Your task to perform on an android device: open app "Google Play Music" Image 0: 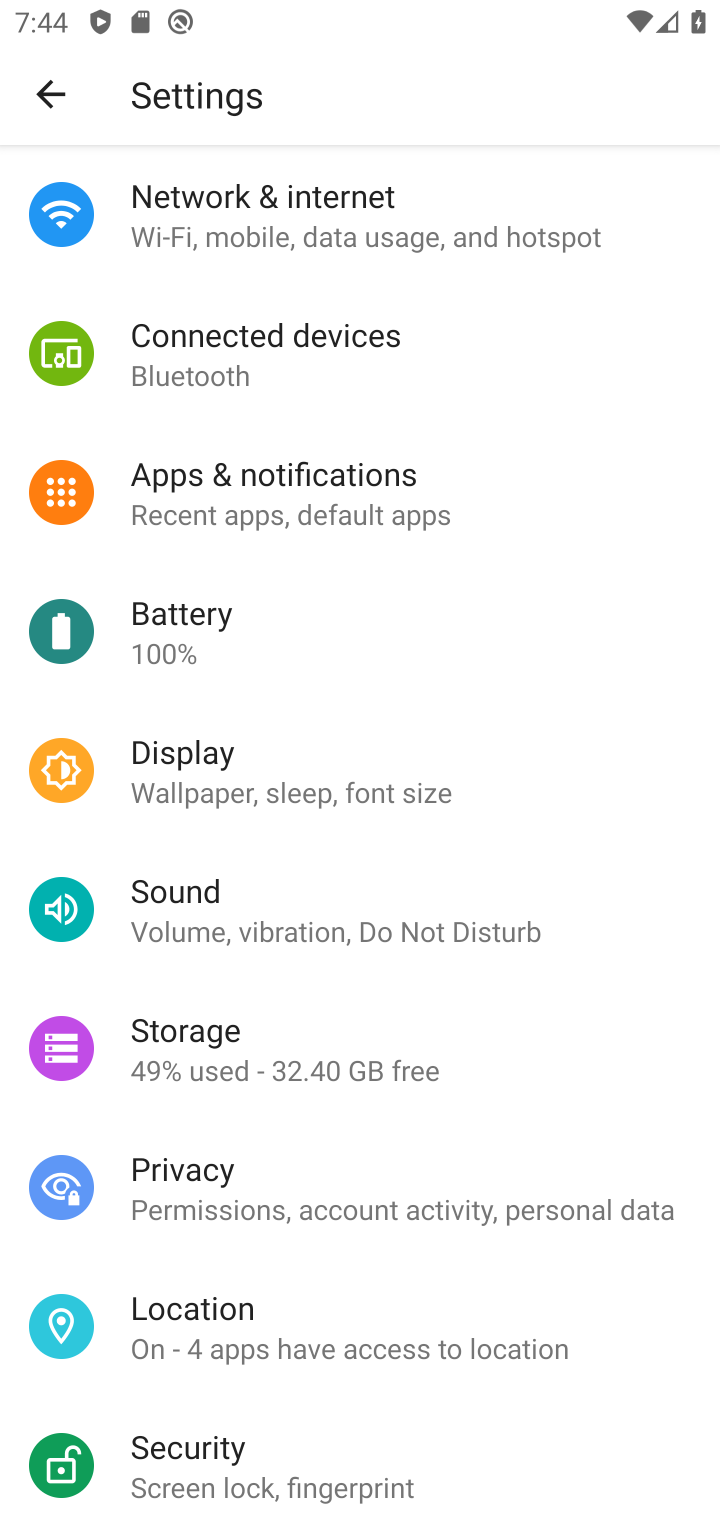
Step 0: press home button
Your task to perform on an android device: open app "Google Play Music" Image 1: 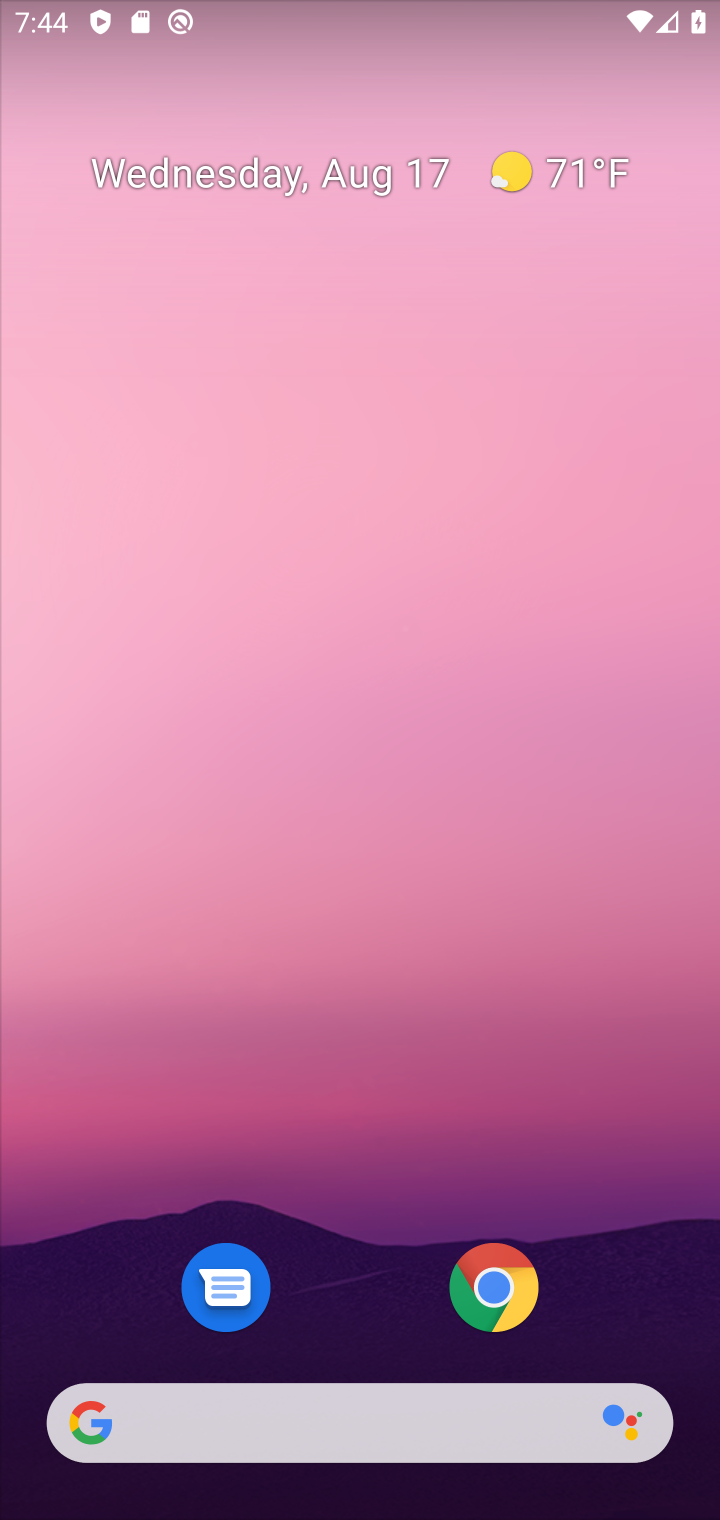
Step 1: drag from (347, 1390) to (373, 236)
Your task to perform on an android device: open app "Google Play Music" Image 2: 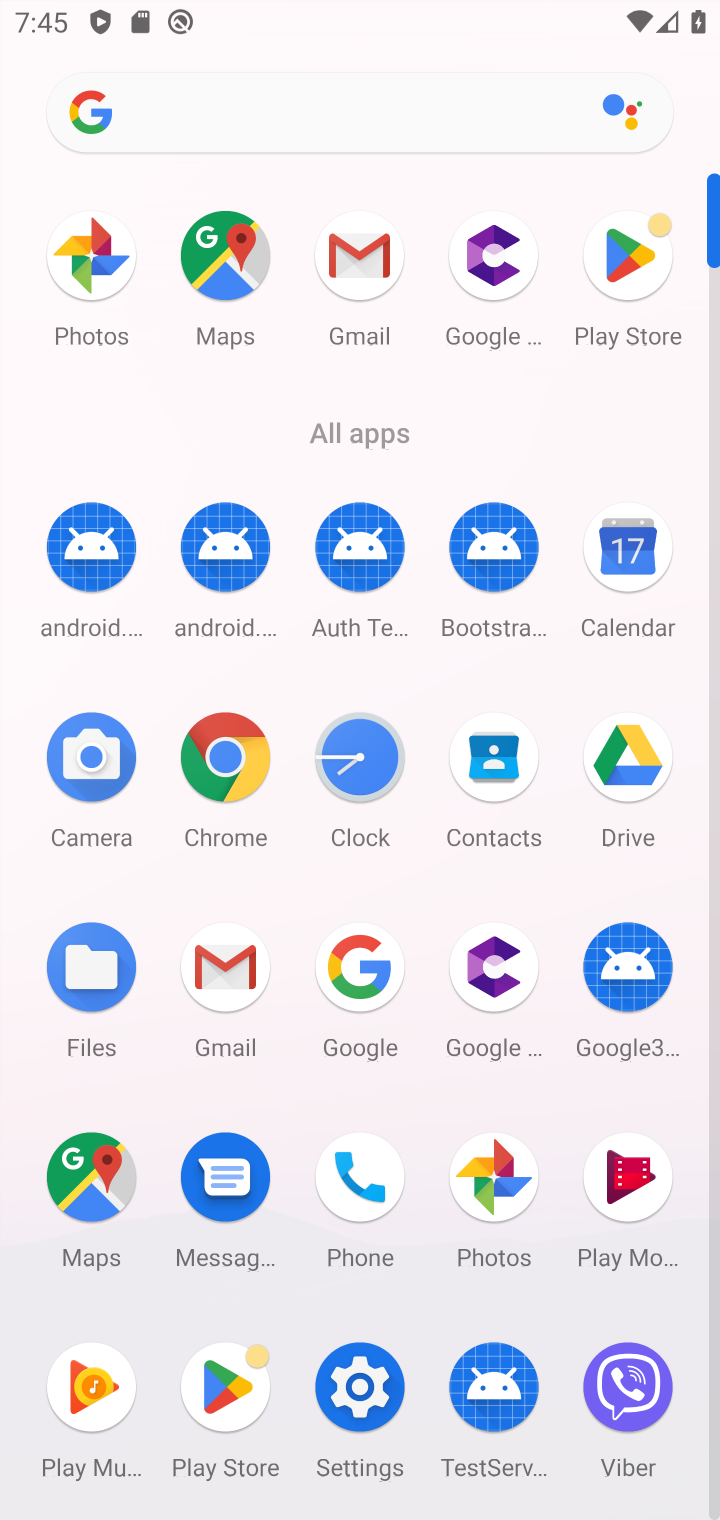
Step 2: click (620, 314)
Your task to perform on an android device: open app "Google Play Music" Image 3: 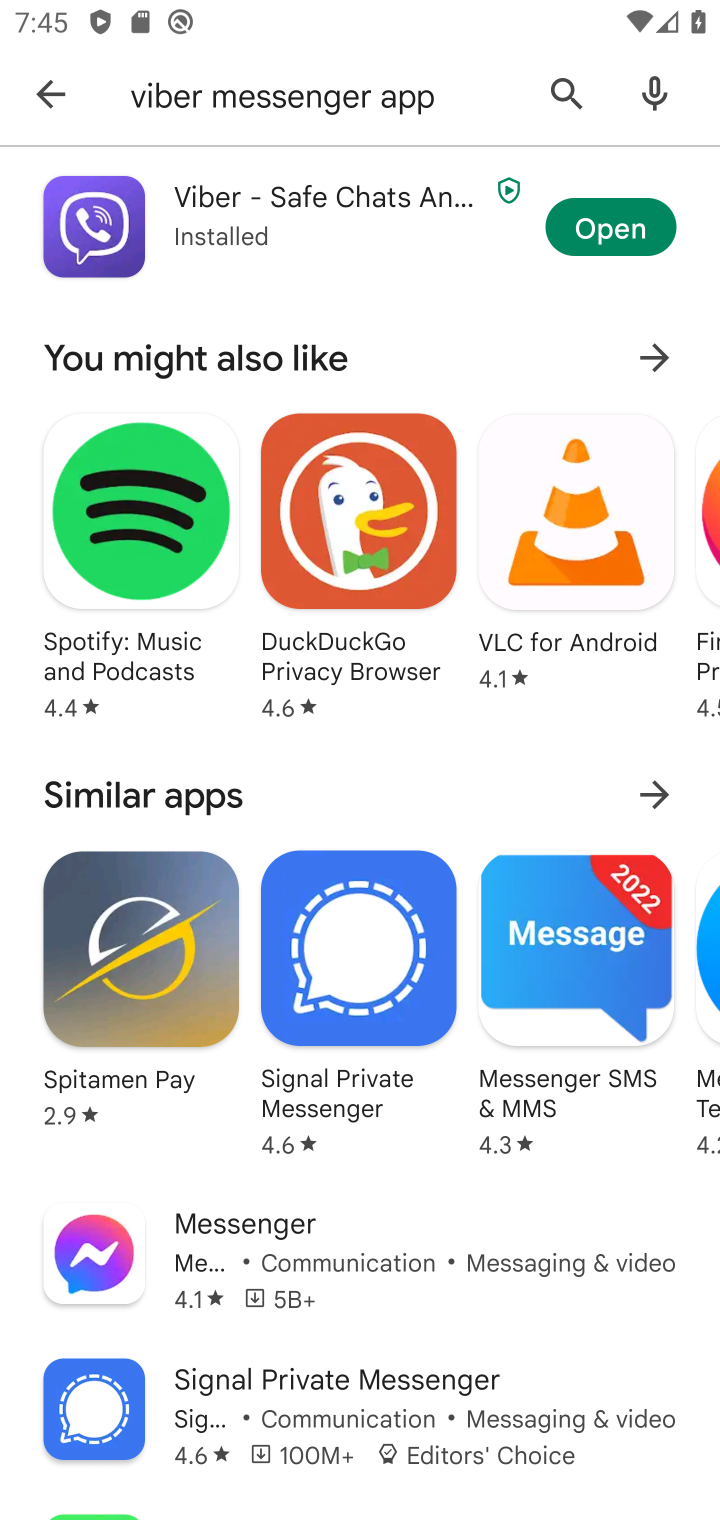
Step 3: click (573, 97)
Your task to perform on an android device: open app "Google Play Music" Image 4: 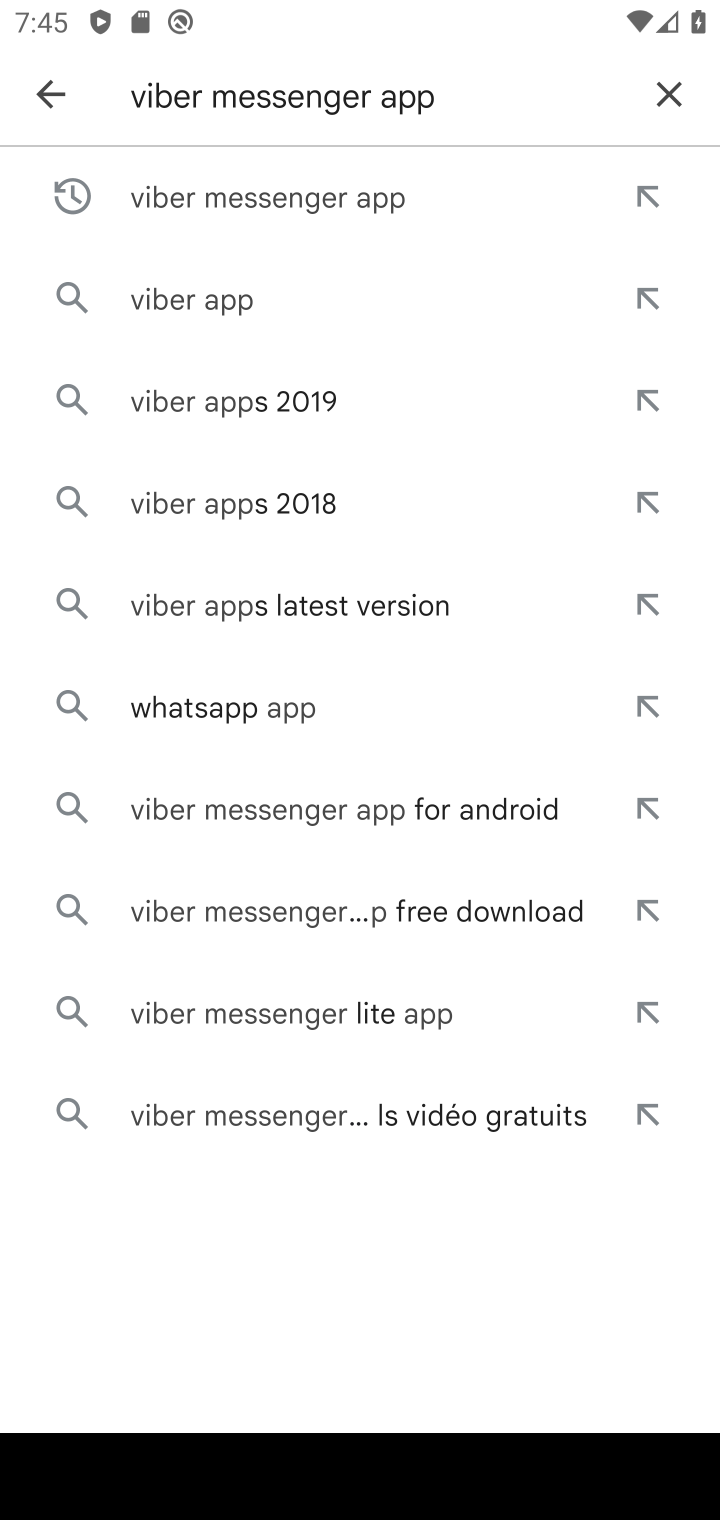
Step 4: click (661, 101)
Your task to perform on an android device: open app "Google Play Music" Image 5: 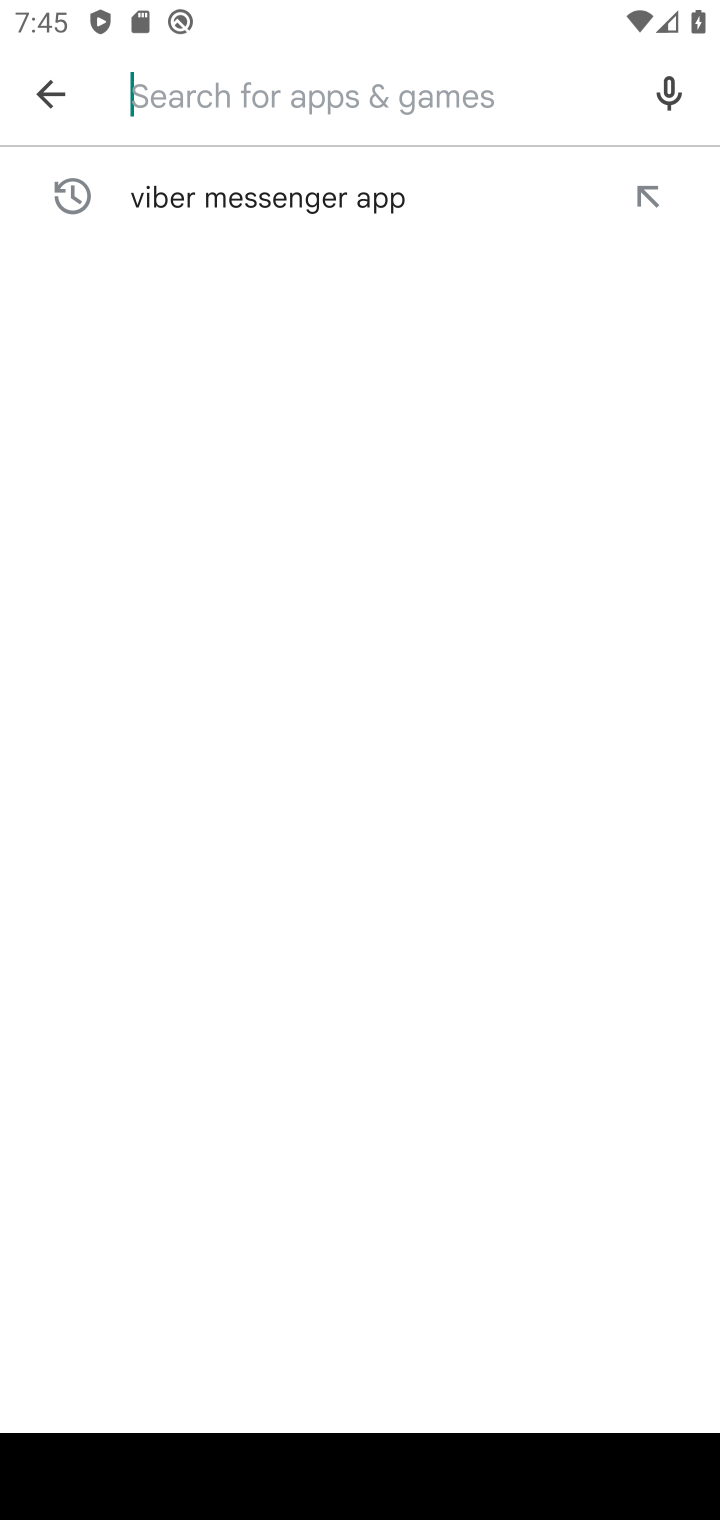
Step 5: type "Google Play Music"
Your task to perform on an android device: open app "Google Play Music" Image 6: 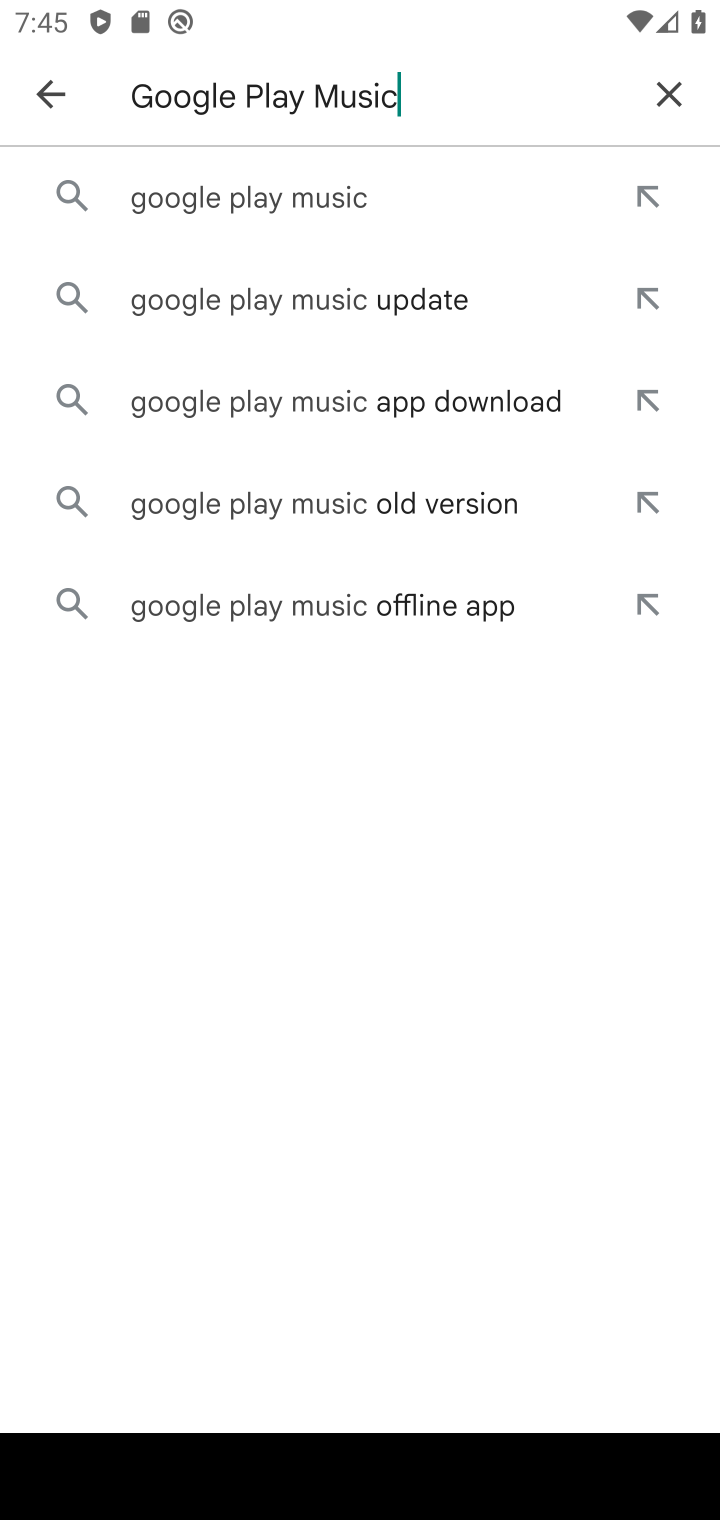
Step 6: click (326, 197)
Your task to perform on an android device: open app "Google Play Music" Image 7: 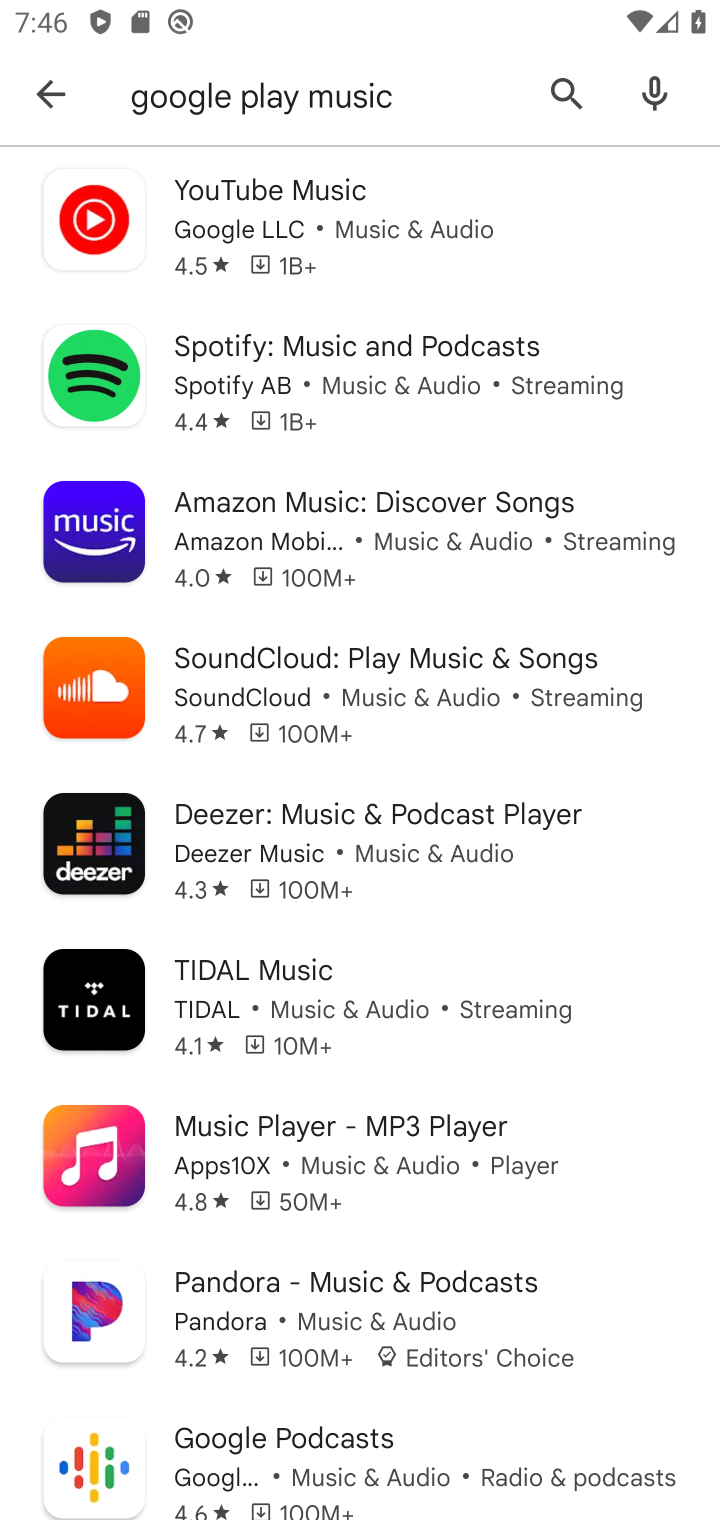
Step 7: click (326, 197)
Your task to perform on an android device: open app "Google Play Music" Image 8: 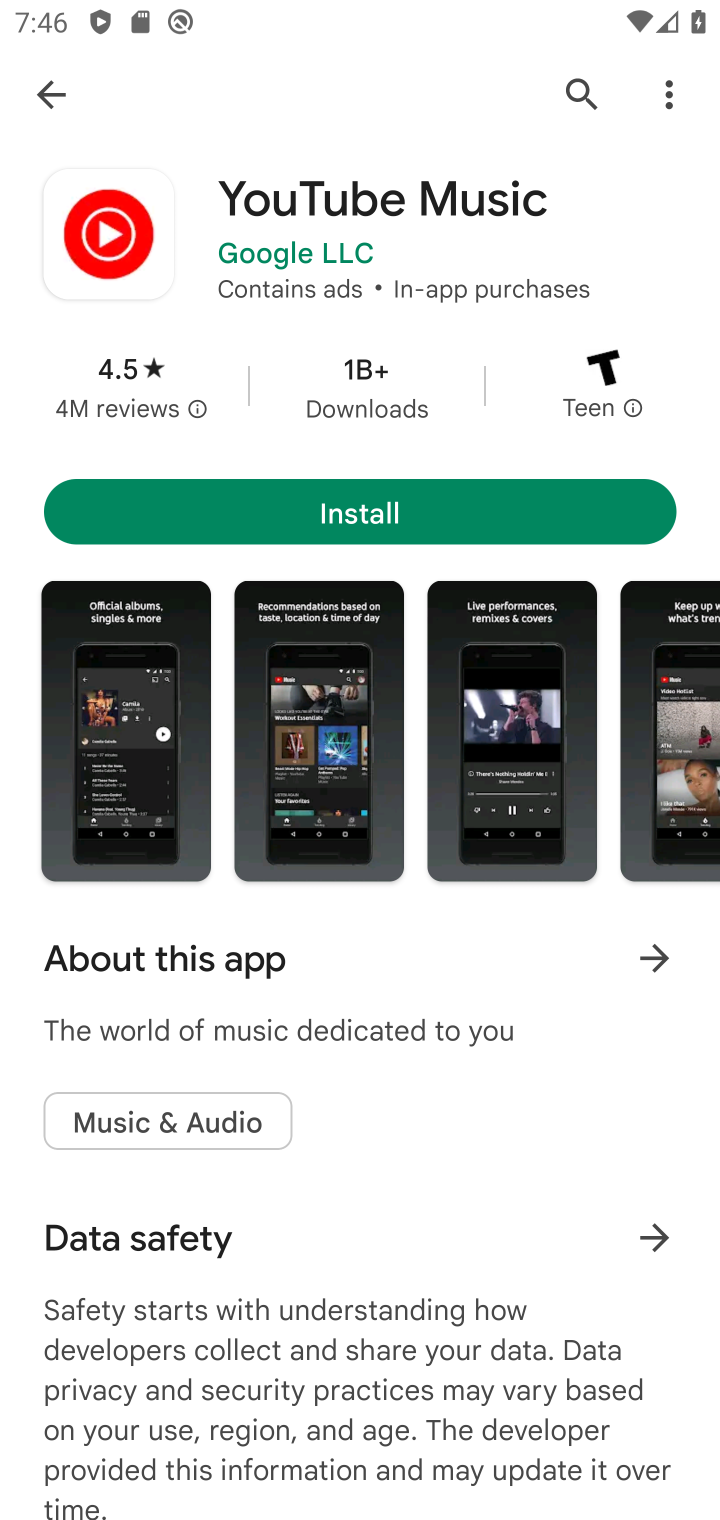
Step 8: task complete